Your task to perform on an android device: turn off location history Image 0: 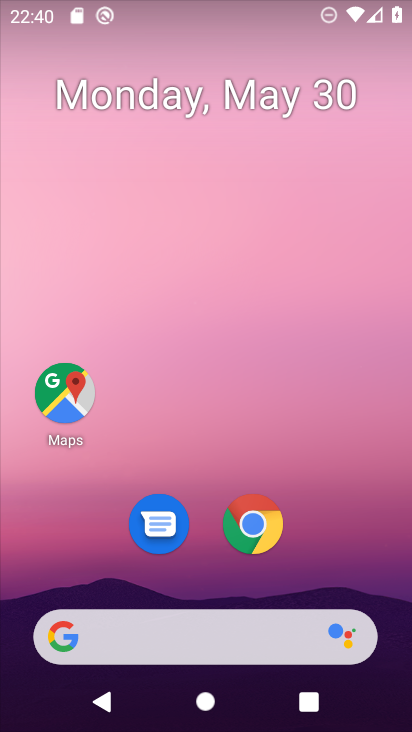
Step 0: drag from (210, 483) to (294, 9)
Your task to perform on an android device: turn off location history Image 1: 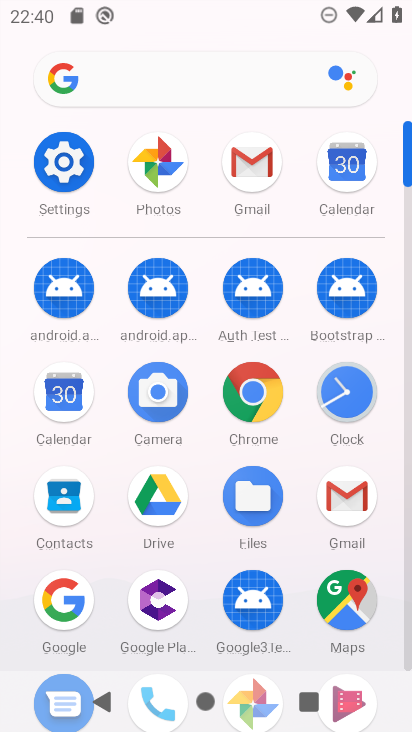
Step 1: click (64, 161)
Your task to perform on an android device: turn off location history Image 2: 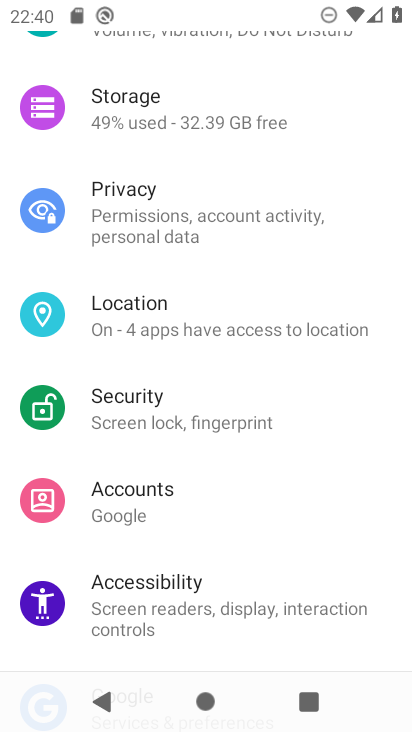
Step 2: click (218, 338)
Your task to perform on an android device: turn off location history Image 3: 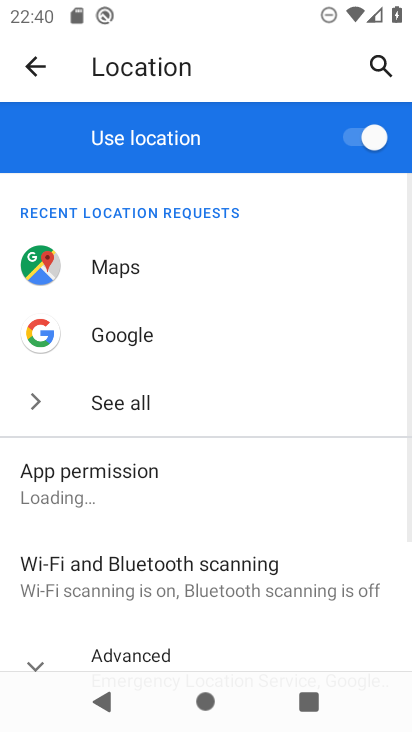
Step 3: drag from (130, 542) to (192, 71)
Your task to perform on an android device: turn off location history Image 4: 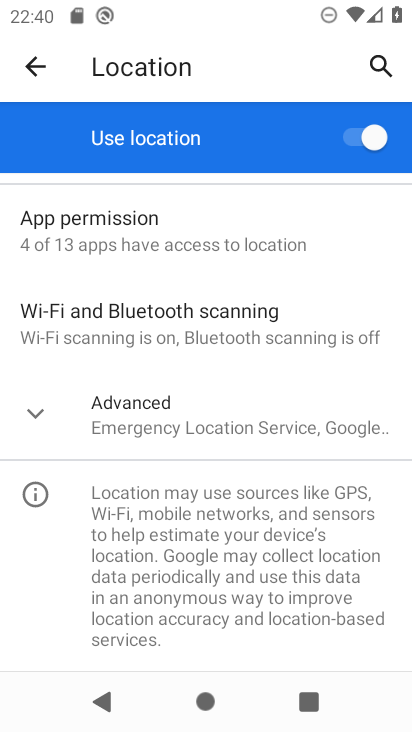
Step 4: click (40, 410)
Your task to perform on an android device: turn off location history Image 5: 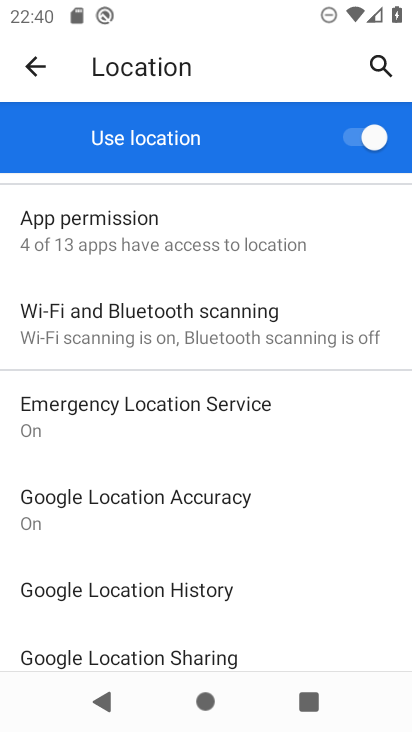
Step 5: click (209, 588)
Your task to perform on an android device: turn off location history Image 6: 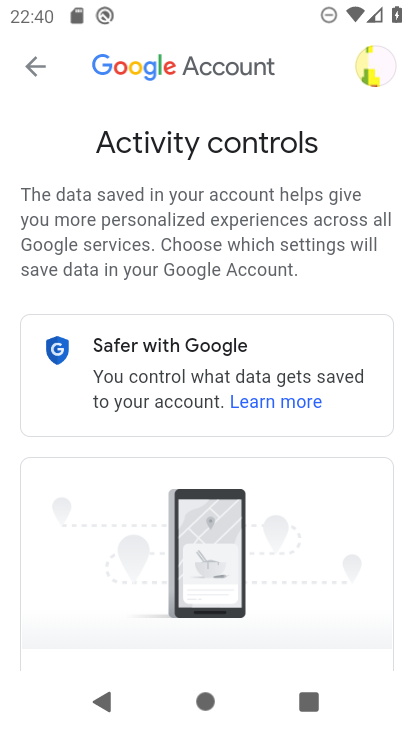
Step 6: task complete